Your task to perform on an android device: Open Chrome and go to the settings page Image 0: 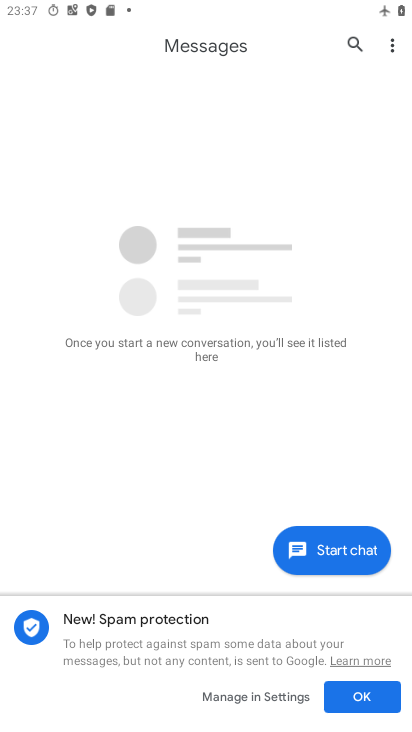
Step 0: press home button
Your task to perform on an android device: Open Chrome and go to the settings page Image 1: 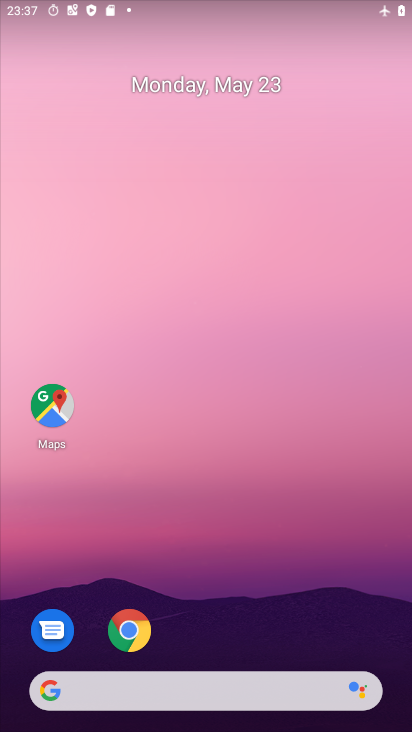
Step 1: click (132, 638)
Your task to perform on an android device: Open Chrome and go to the settings page Image 2: 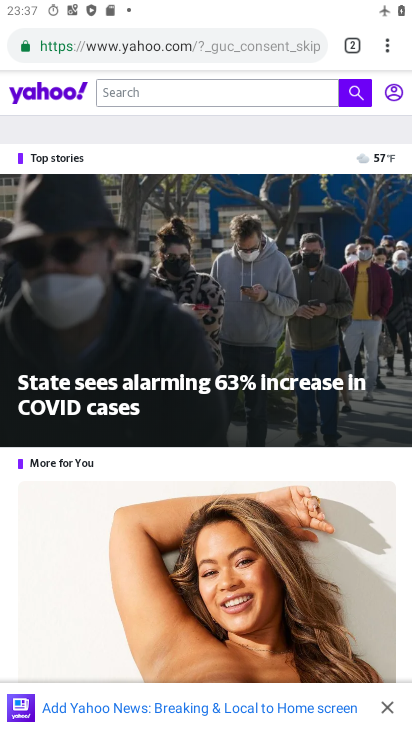
Step 2: click (387, 48)
Your task to perform on an android device: Open Chrome and go to the settings page Image 3: 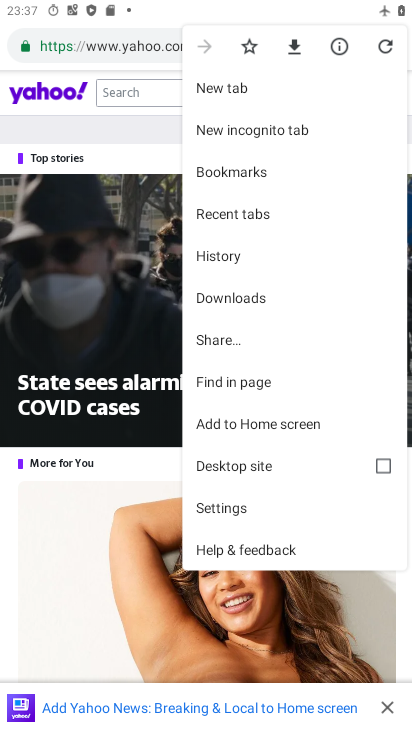
Step 3: click (236, 508)
Your task to perform on an android device: Open Chrome and go to the settings page Image 4: 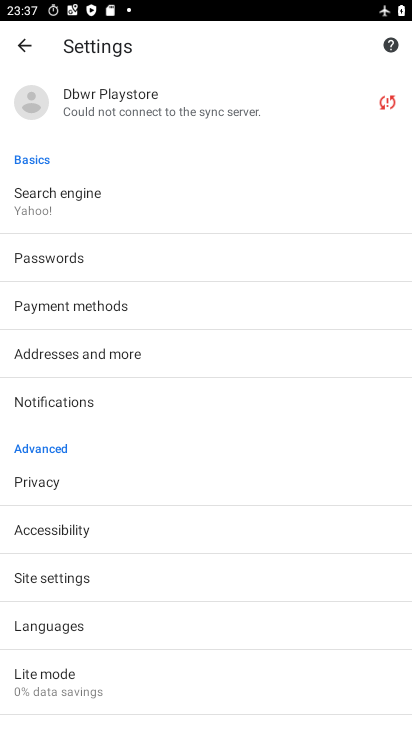
Step 4: task complete